Your task to perform on an android device: turn notification dots off Image 0: 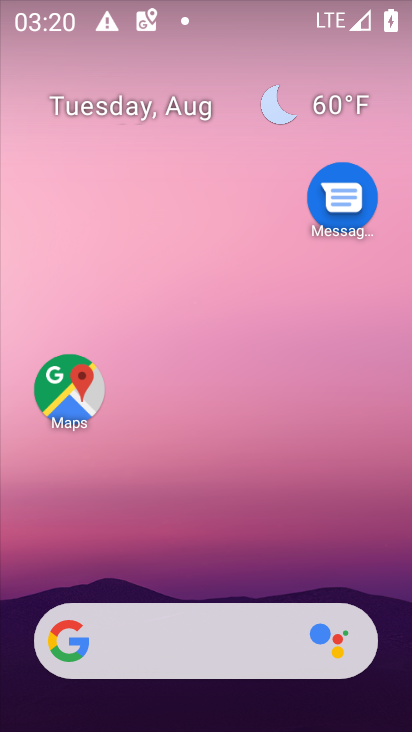
Step 0: drag from (234, 593) to (193, 36)
Your task to perform on an android device: turn notification dots off Image 1: 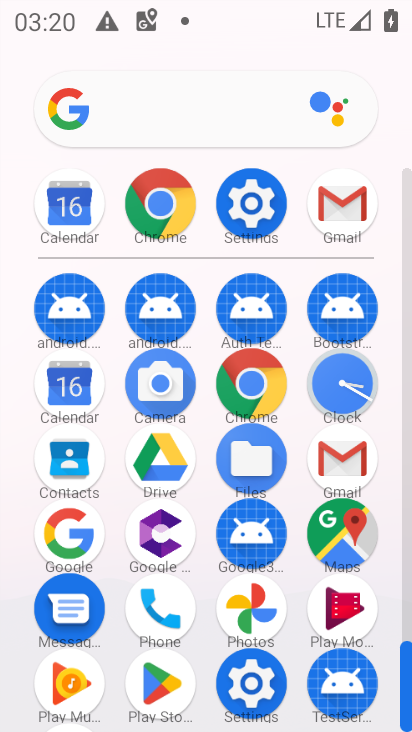
Step 1: click (260, 182)
Your task to perform on an android device: turn notification dots off Image 2: 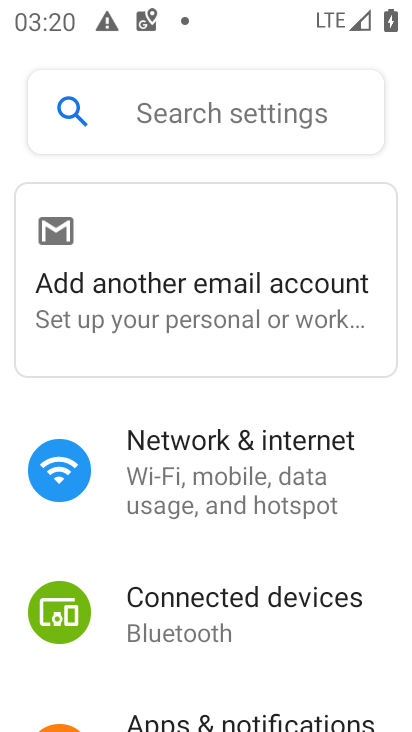
Step 2: drag from (255, 639) to (251, 412)
Your task to perform on an android device: turn notification dots off Image 3: 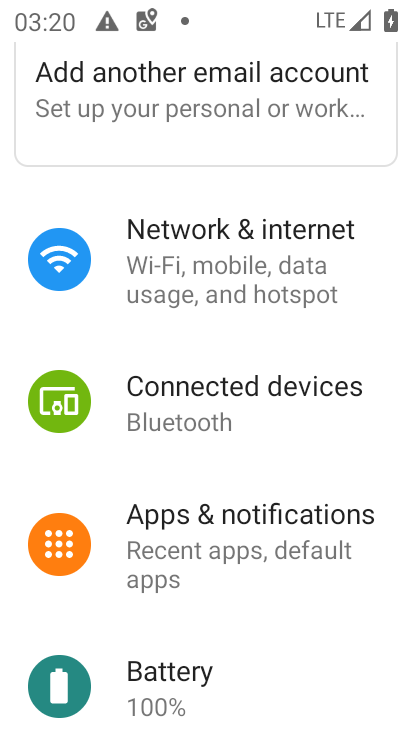
Step 3: click (255, 502)
Your task to perform on an android device: turn notification dots off Image 4: 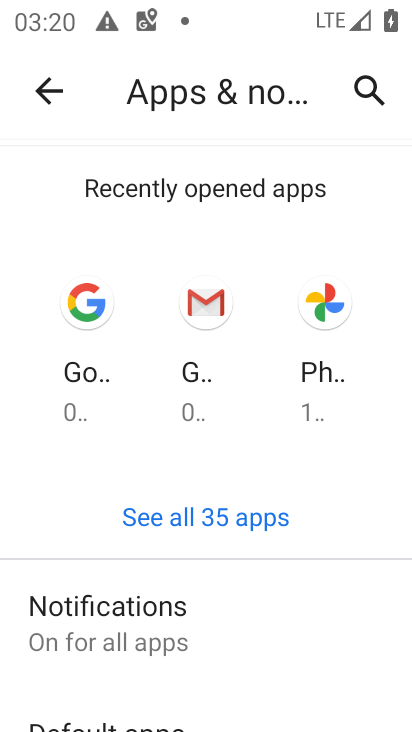
Step 4: drag from (208, 588) to (210, 164)
Your task to perform on an android device: turn notification dots off Image 5: 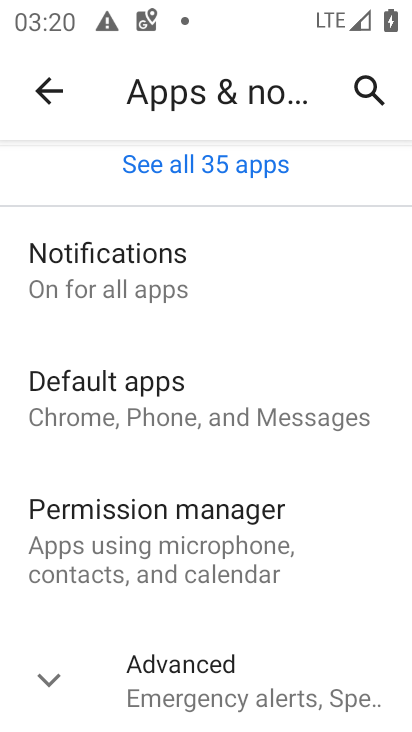
Step 5: click (220, 302)
Your task to perform on an android device: turn notification dots off Image 6: 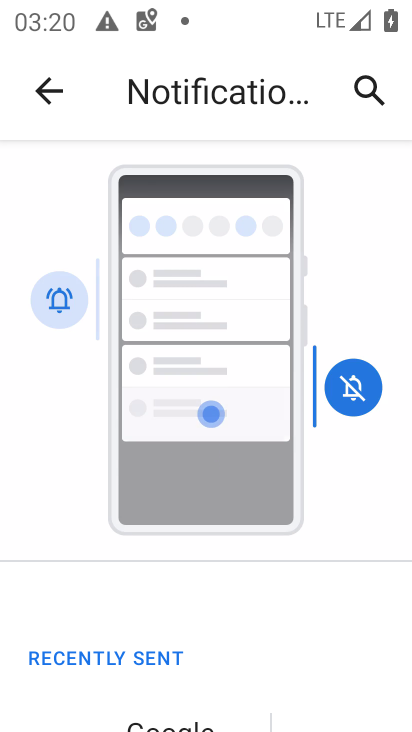
Step 6: drag from (243, 577) to (249, 155)
Your task to perform on an android device: turn notification dots off Image 7: 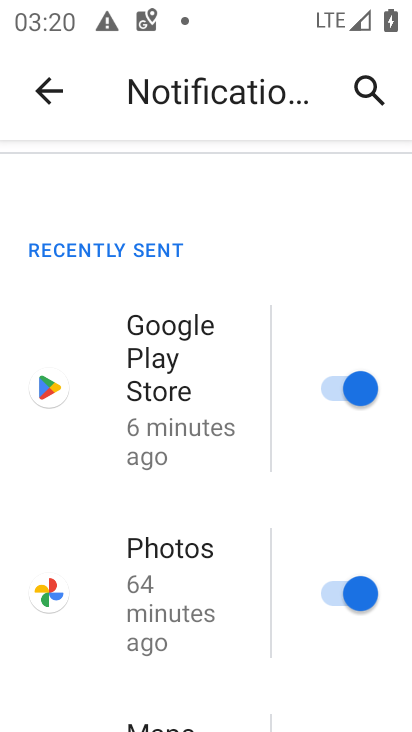
Step 7: drag from (260, 592) to (240, 210)
Your task to perform on an android device: turn notification dots off Image 8: 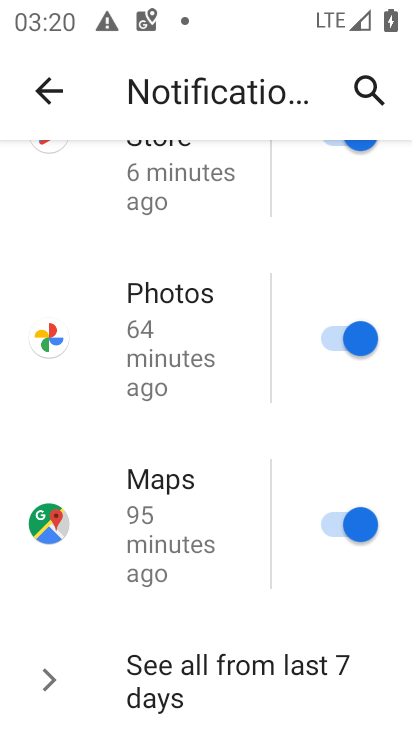
Step 8: drag from (261, 609) to (281, 303)
Your task to perform on an android device: turn notification dots off Image 9: 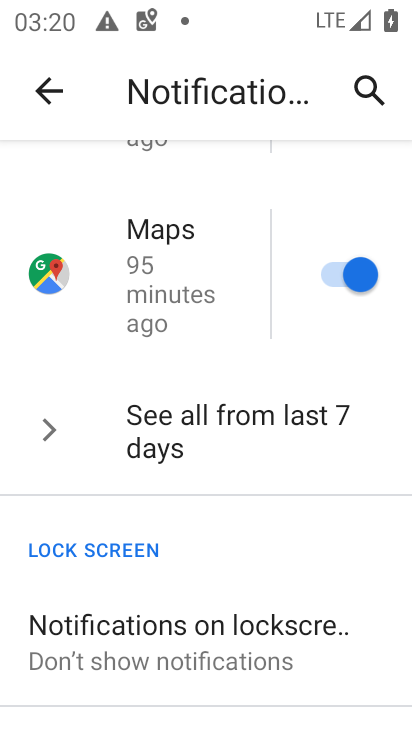
Step 9: drag from (274, 677) to (248, 244)
Your task to perform on an android device: turn notification dots off Image 10: 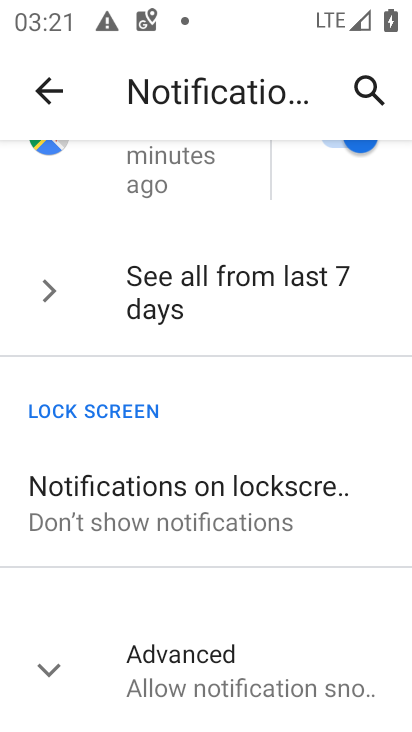
Step 10: click (255, 675)
Your task to perform on an android device: turn notification dots off Image 11: 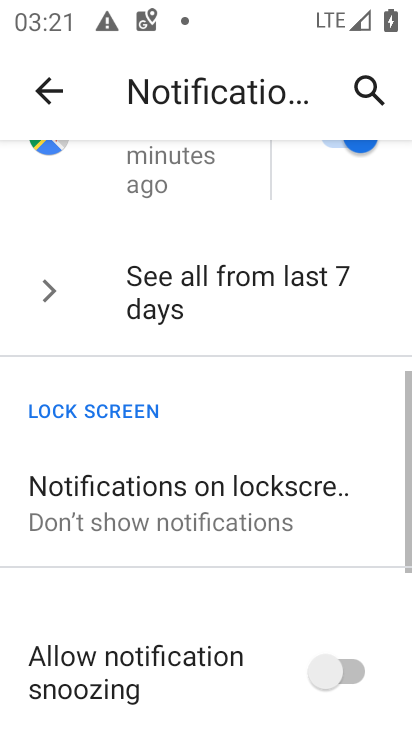
Step 11: drag from (310, 543) to (284, 195)
Your task to perform on an android device: turn notification dots off Image 12: 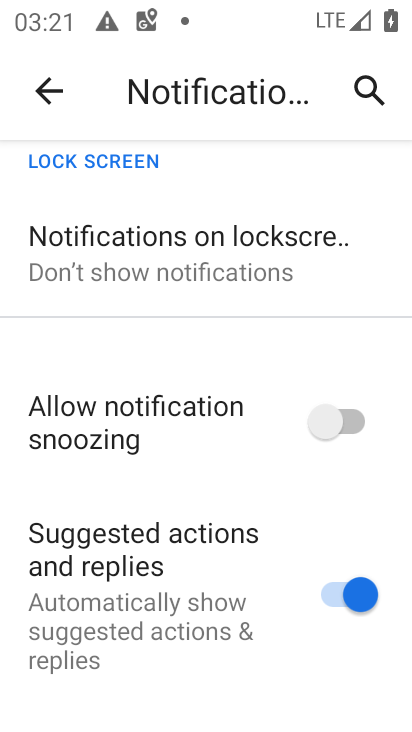
Step 12: drag from (323, 682) to (331, 220)
Your task to perform on an android device: turn notification dots off Image 13: 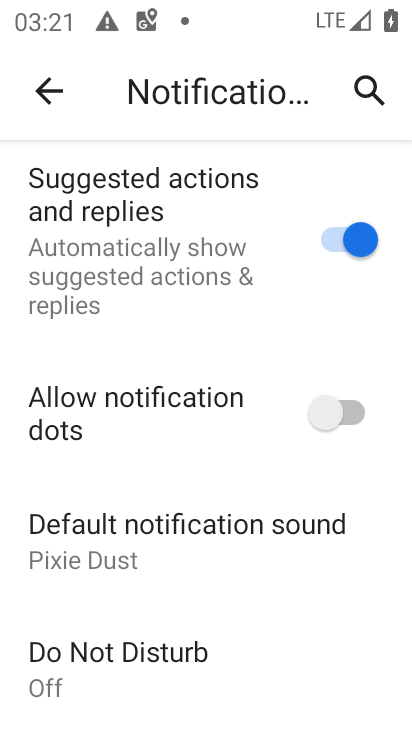
Step 13: click (308, 432)
Your task to perform on an android device: turn notification dots off Image 14: 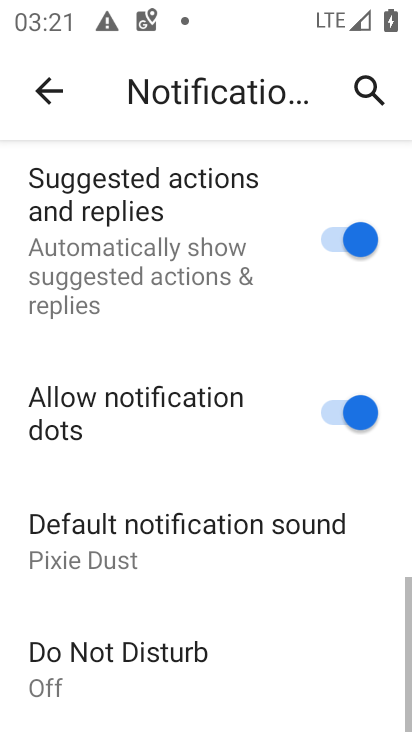
Step 14: task complete